Your task to perform on an android device: turn off translation in the chrome app Image 0: 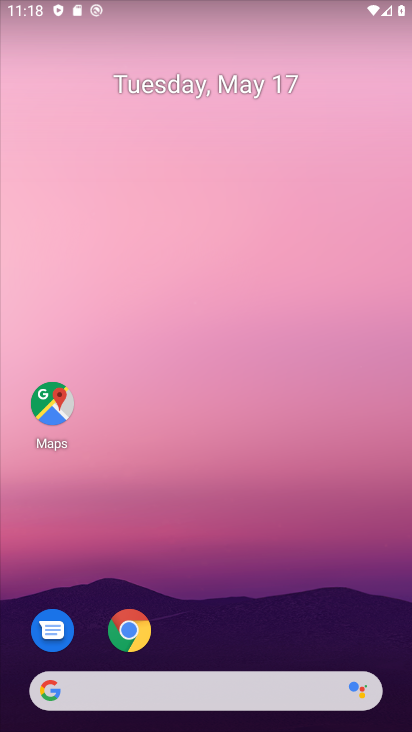
Step 0: click (133, 627)
Your task to perform on an android device: turn off translation in the chrome app Image 1: 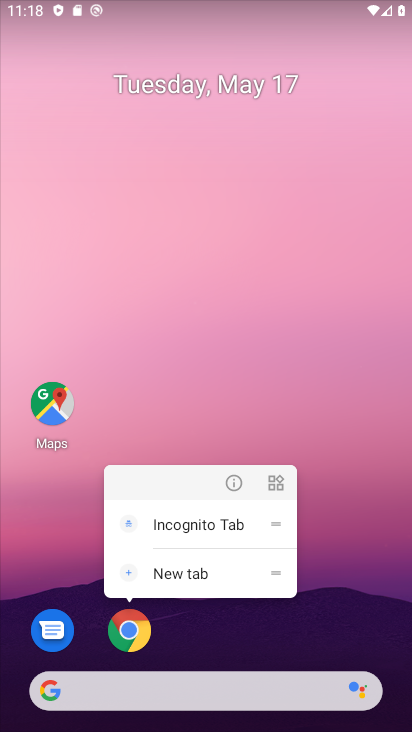
Step 1: click (133, 634)
Your task to perform on an android device: turn off translation in the chrome app Image 2: 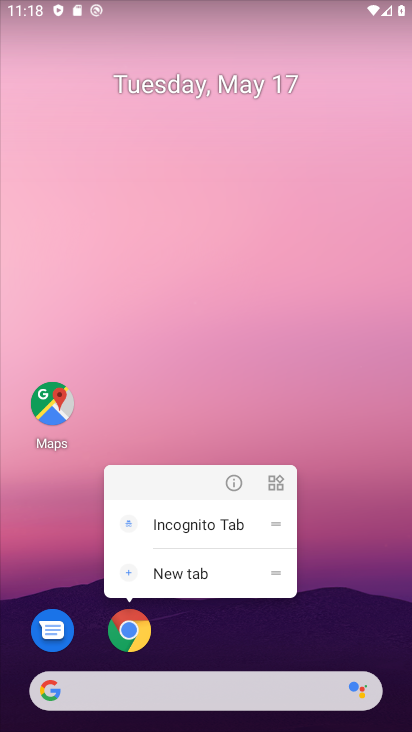
Step 2: click (126, 630)
Your task to perform on an android device: turn off translation in the chrome app Image 3: 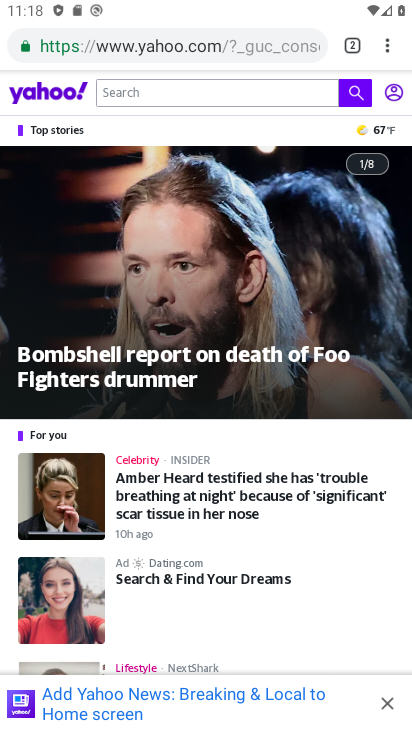
Step 3: drag from (388, 40) to (246, 551)
Your task to perform on an android device: turn off translation in the chrome app Image 4: 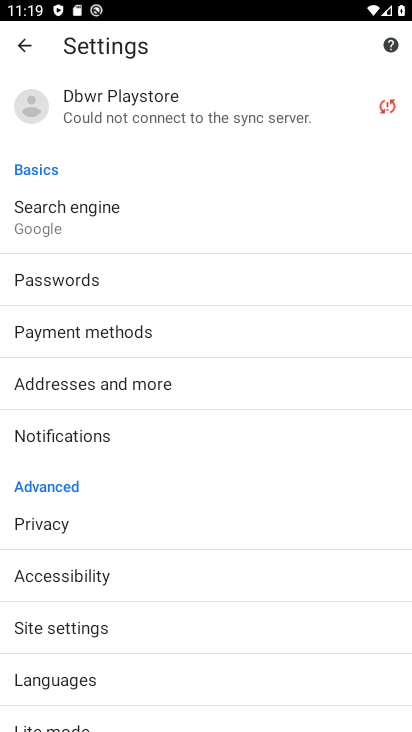
Step 4: click (70, 680)
Your task to perform on an android device: turn off translation in the chrome app Image 5: 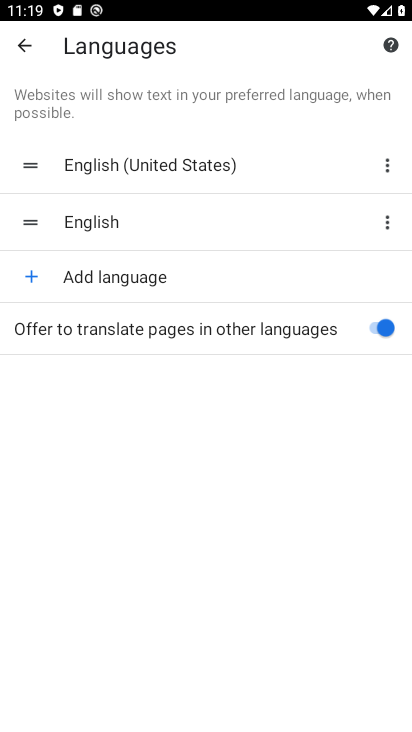
Step 5: click (379, 326)
Your task to perform on an android device: turn off translation in the chrome app Image 6: 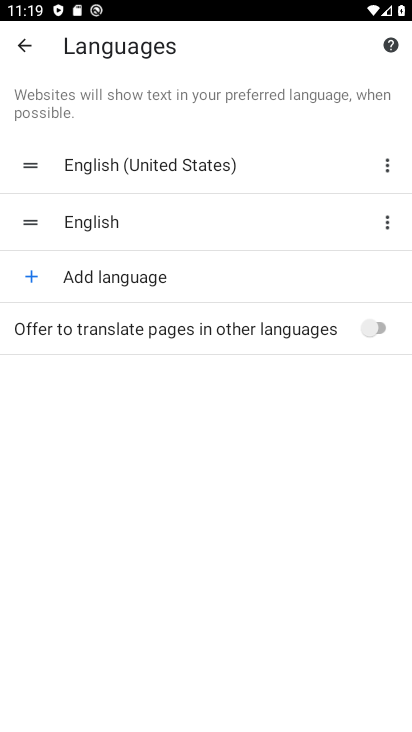
Step 6: task complete